Your task to perform on an android device: Open display settings Image 0: 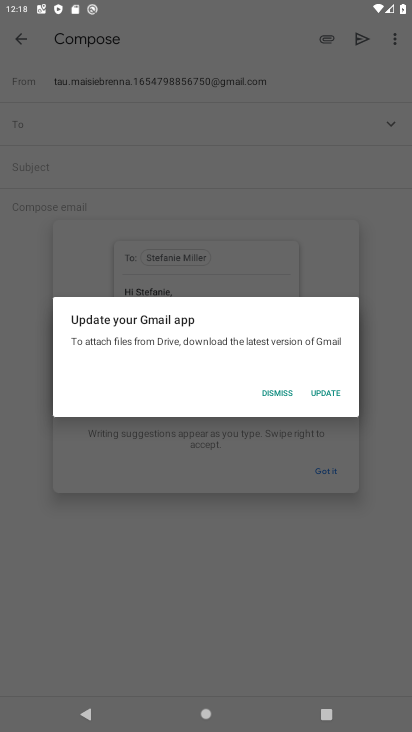
Step 0: press home button
Your task to perform on an android device: Open display settings Image 1: 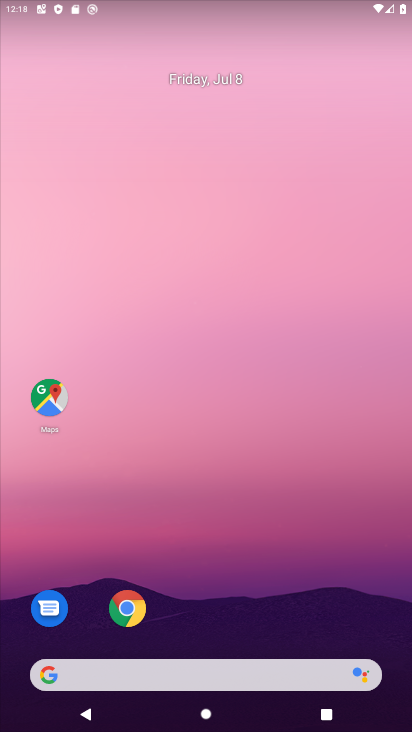
Step 1: drag from (49, 692) to (202, 173)
Your task to perform on an android device: Open display settings Image 2: 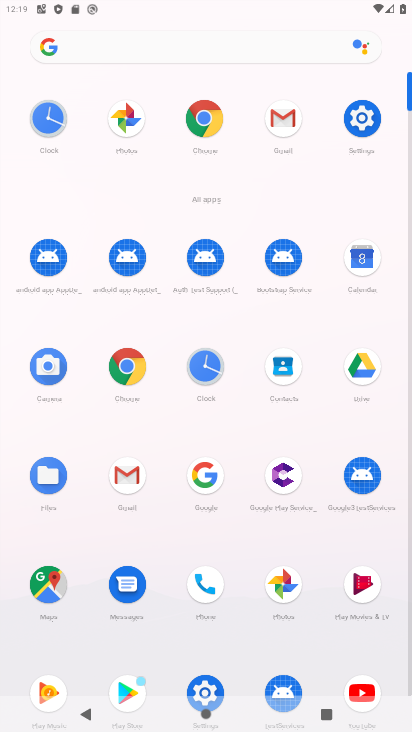
Step 2: click (210, 695)
Your task to perform on an android device: Open display settings Image 3: 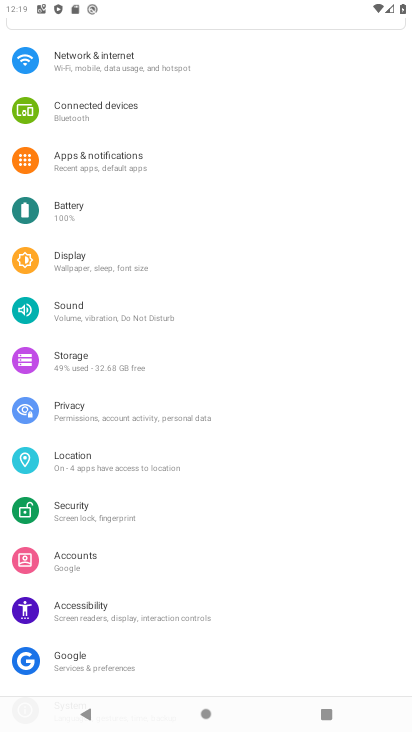
Step 3: click (75, 261)
Your task to perform on an android device: Open display settings Image 4: 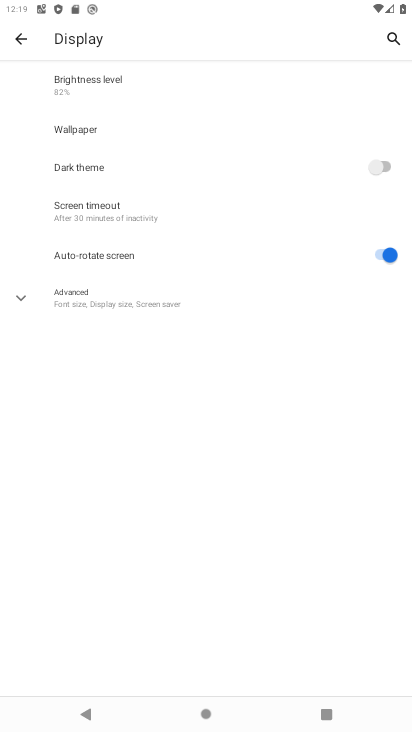
Step 4: task complete